Your task to perform on an android device: Open the phone app and click the voicemail tab. Image 0: 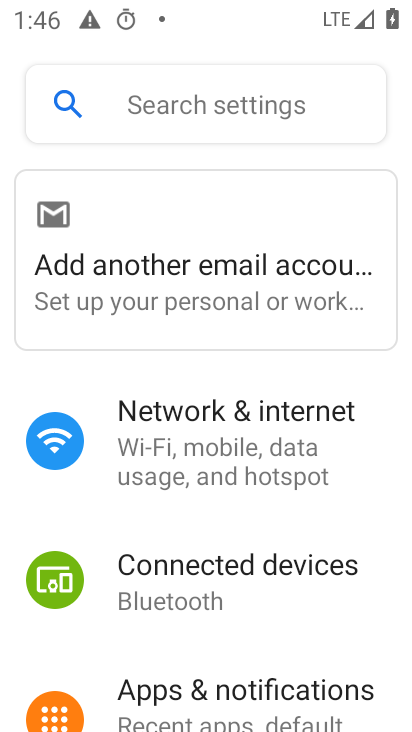
Step 0: press back button
Your task to perform on an android device: Open the phone app and click the voicemail tab. Image 1: 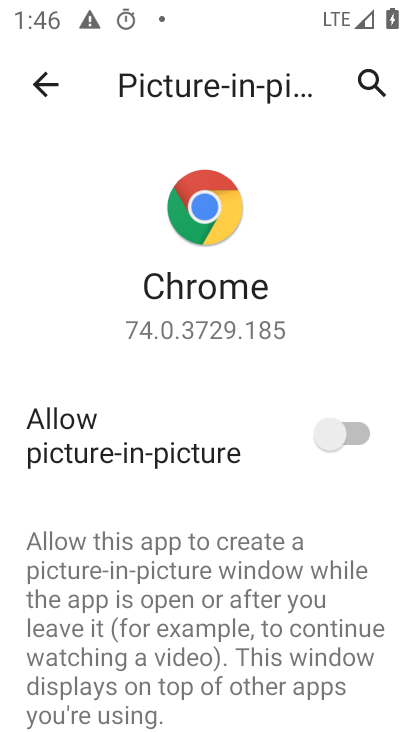
Step 1: press home button
Your task to perform on an android device: Open the phone app and click the voicemail tab. Image 2: 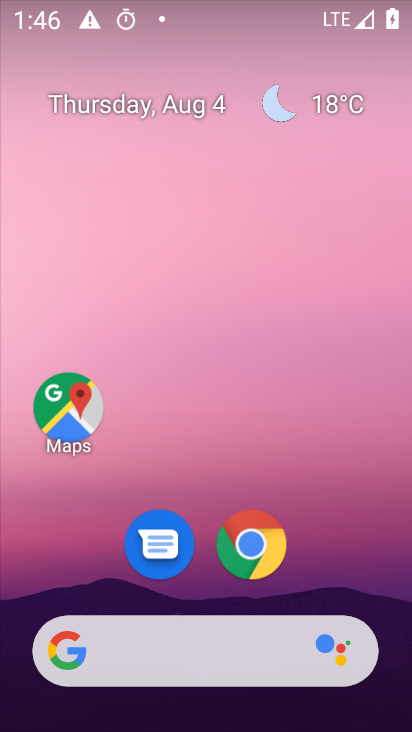
Step 2: drag from (381, 696) to (293, 173)
Your task to perform on an android device: Open the phone app and click the voicemail tab. Image 3: 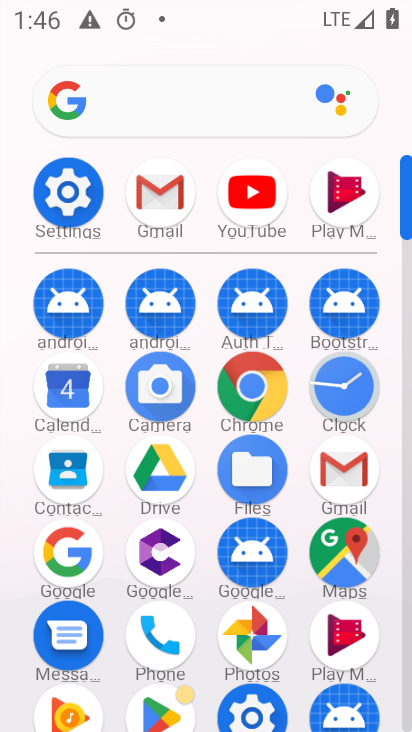
Step 3: click (157, 626)
Your task to perform on an android device: Open the phone app and click the voicemail tab. Image 4: 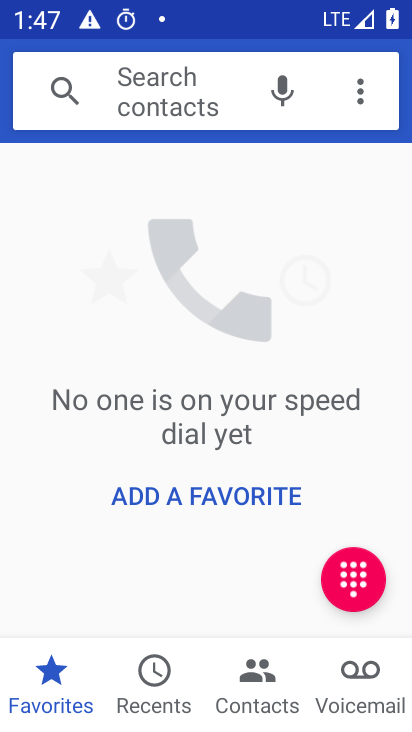
Step 4: click (373, 678)
Your task to perform on an android device: Open the phone app and click the voicemail tab. Image 5: 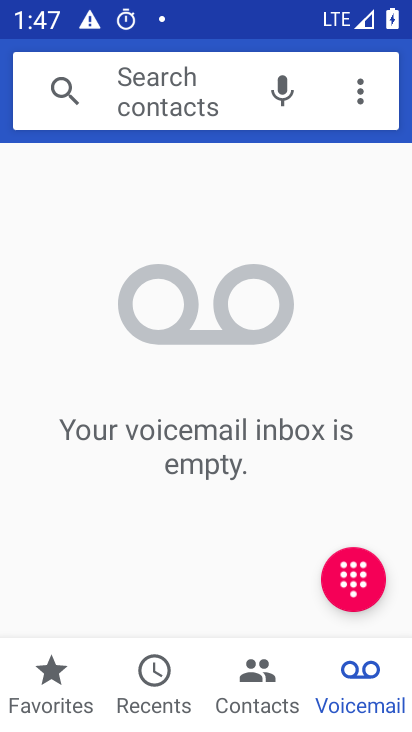
Step 5: task complete